Your task to perform on an android device: open chrome privacy settings Image 0: 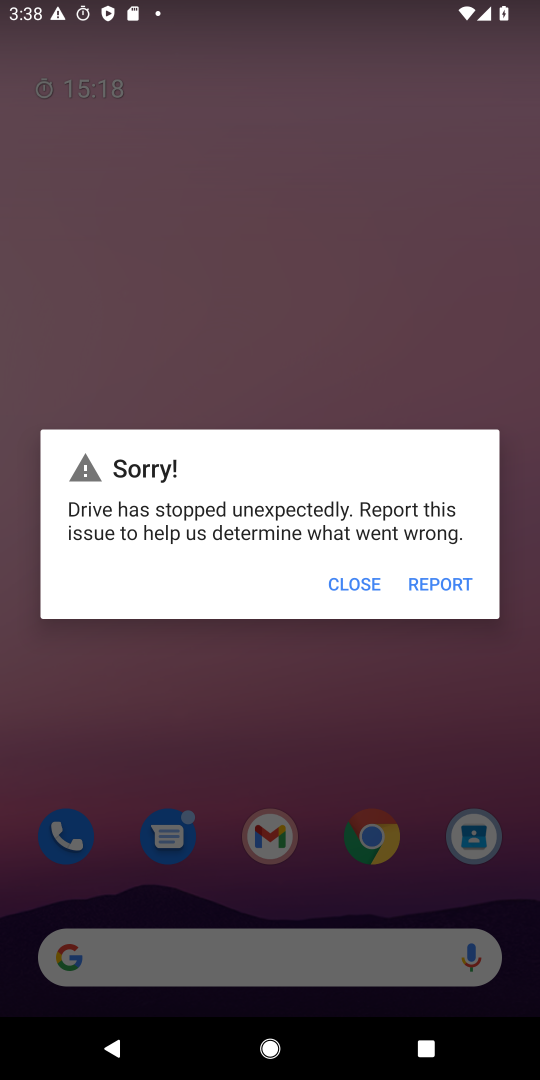
Step 0: click (358, 572)
Your task to perform on an android device: open chrome privacy settings Image 1: 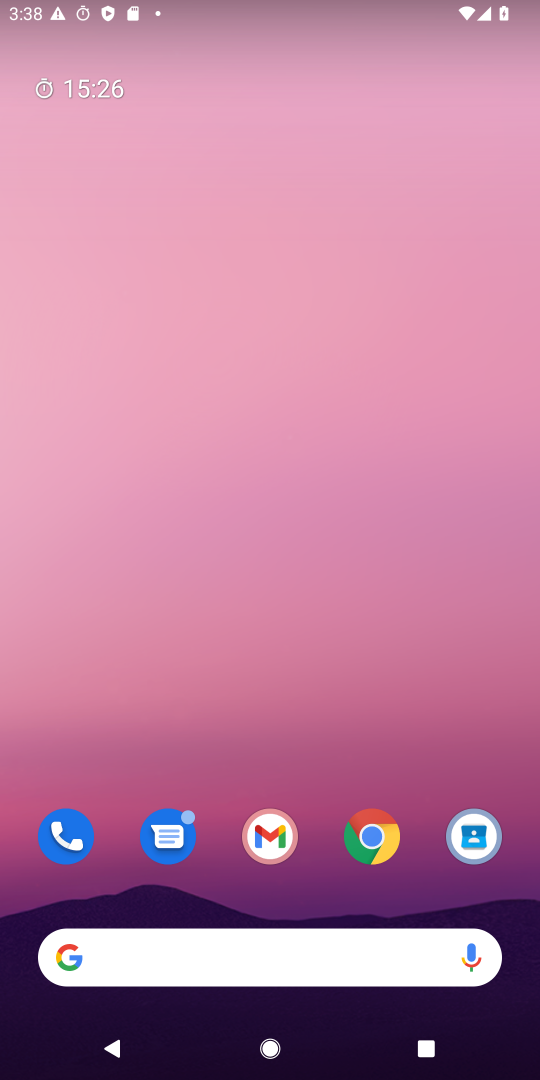
Step 1: click (368, 851)
Your task to perform on an android device: open chrome privacy settings Image 2: 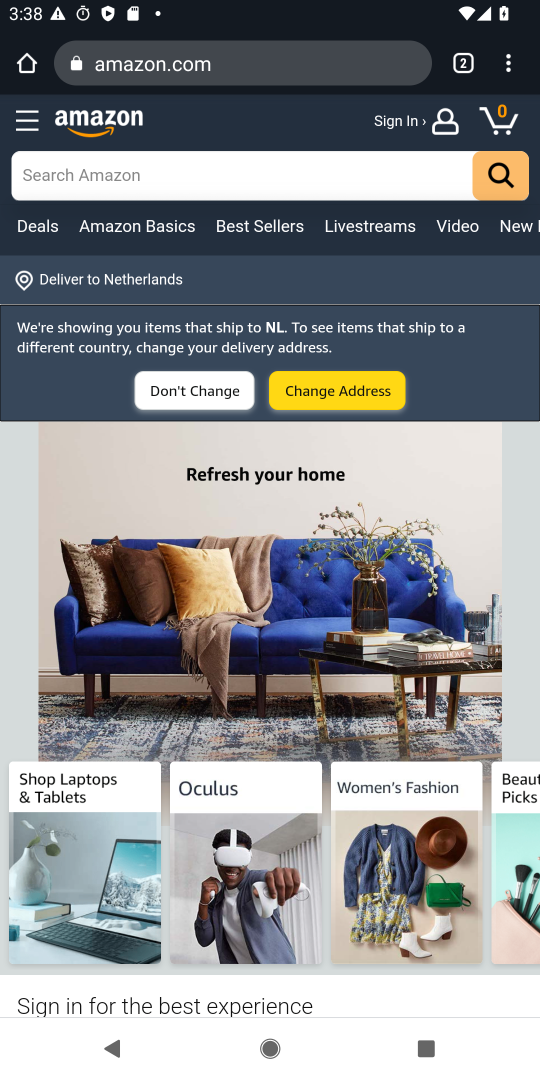
Step 2: click (501, 60)
Your task to perform on an android device: open chrome privacy settings Image 3: 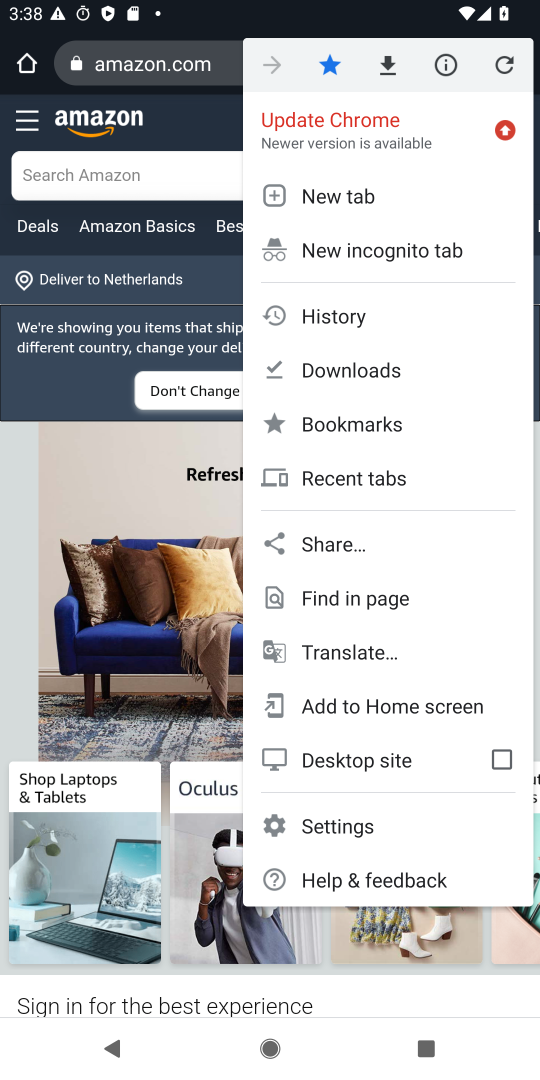
Step 3: click (343, 819)
Your task to perform on an android device: open chrome privacy settings Image 4: 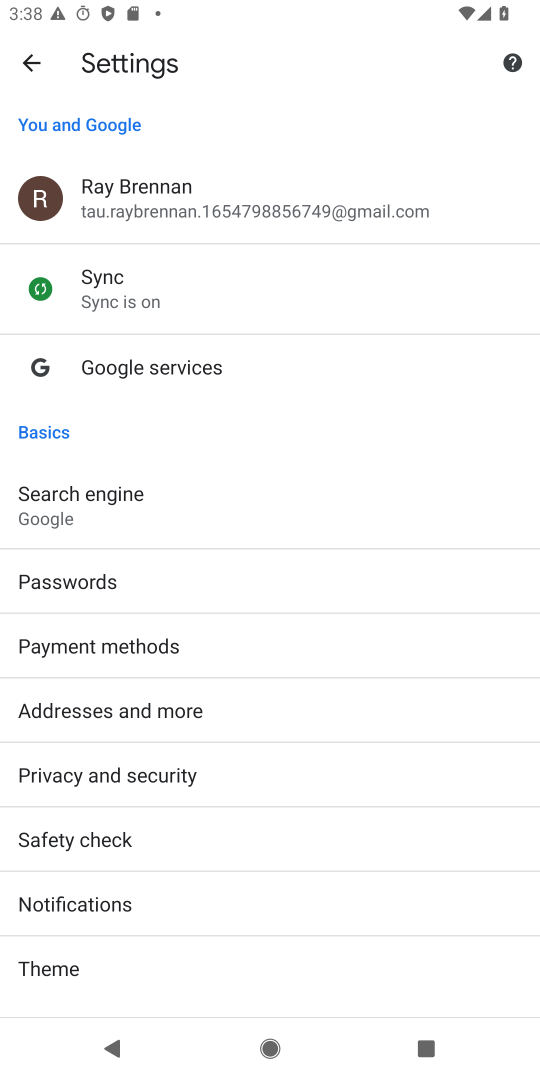
Step 4: drag from (116, 851) to (156, 505)
Your task to perform on an android device: open chrome privacy settings Image 5: 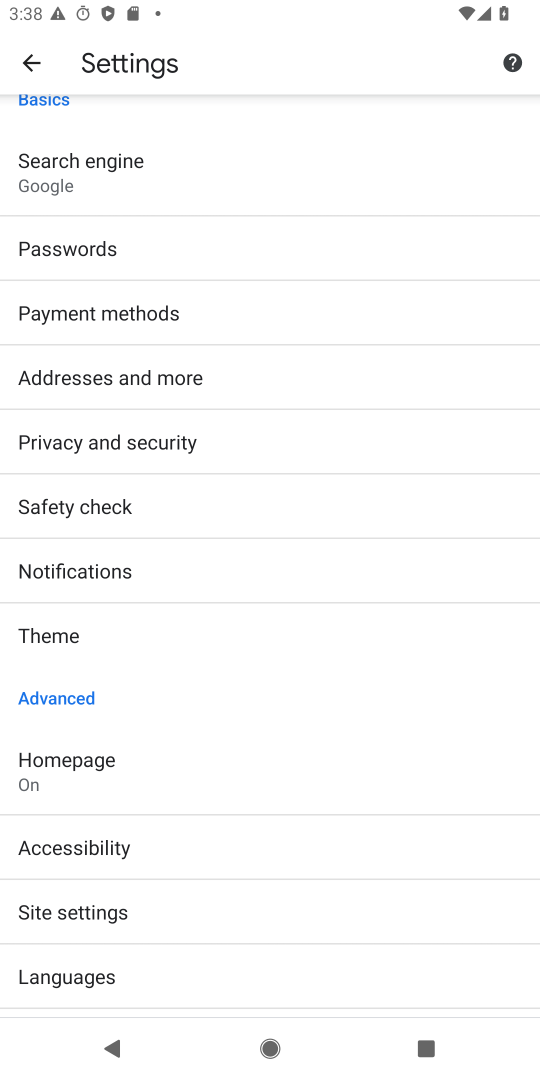
Step 5: click (135, 455)
Your task to perform on an android device: open chrome privacy settings Image 6: 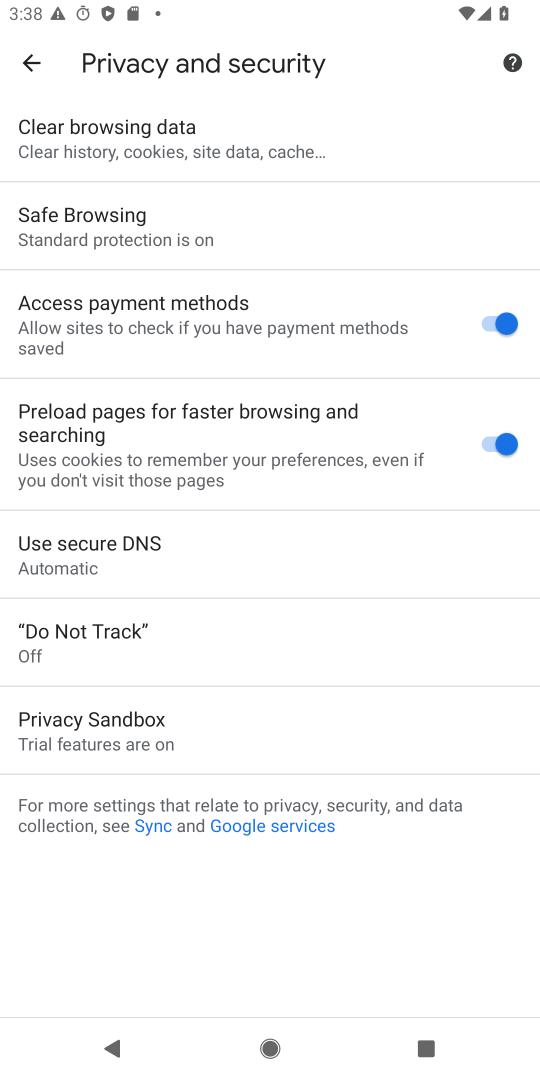
Step 6: task complete